Your task to perform on an android device: Clear the cart on newegg. Add alienware aurora to the cart on newegg, then select checkout. Image 0: 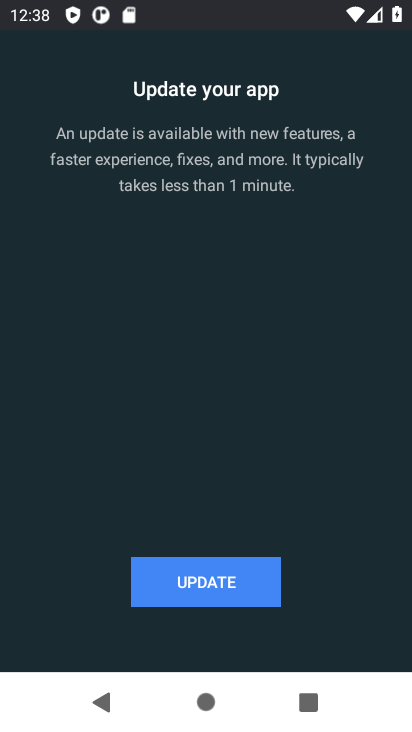
Step 0: press home button
Your task to perform on an android device: Clear the cart on newegg. Add alienware aurora to the cart on newegg, then select checkout. Image 1: 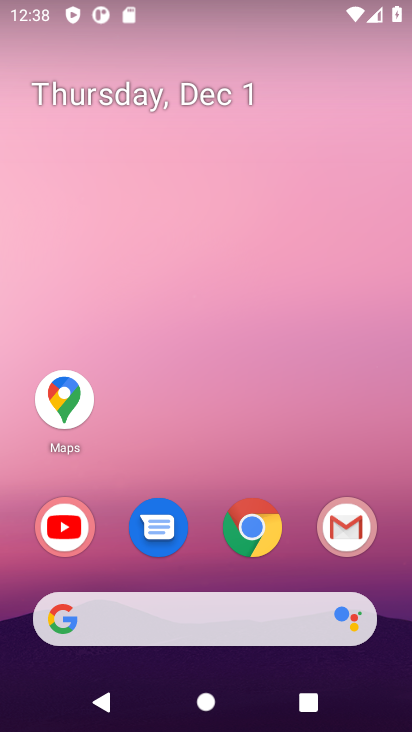
Step 1: click (261, 528)
Your task to perform on an android device: Clear the cart on newegg. Add alienware aurora to the cart on newegg, then select checkout. Image 2: 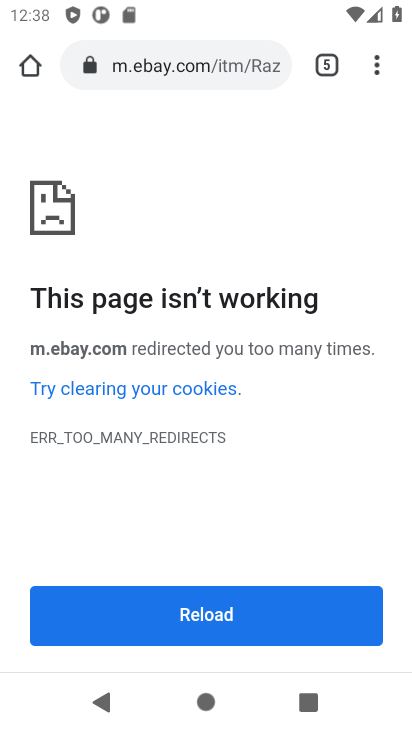
Step 2: click (169, 66)
Your task to perform on an android device: Clear the cart on newegg. Add alienware aurora to the cart on newegg, then select checkout. Image 3: 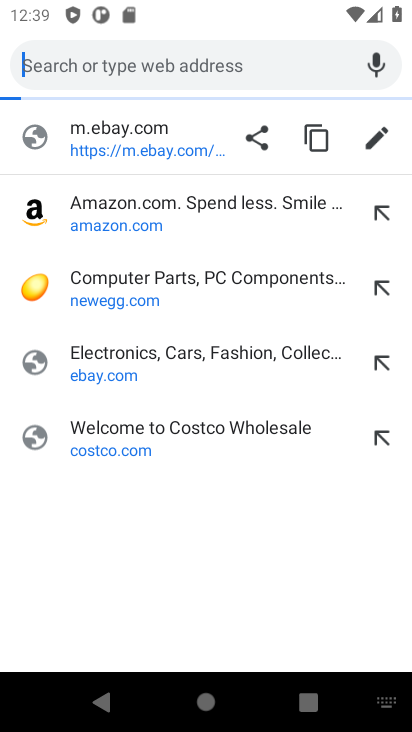
Step 3: click (99, 291)
Your task to perform on an android device: Clear the cart on newegg. Add alienware aurora to the cart on newegg, then select checkout. Image 4: 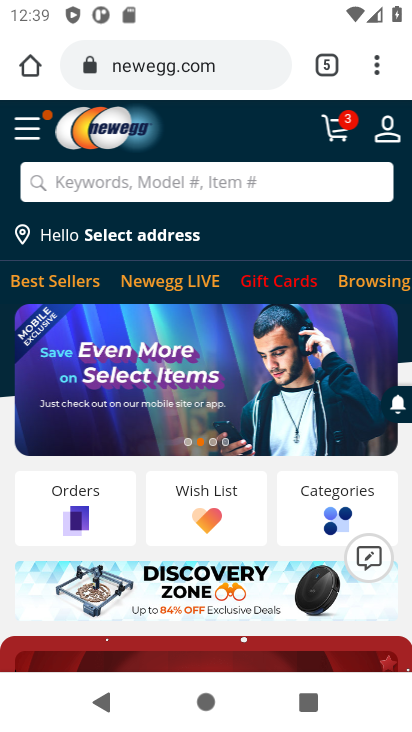
Step 4: click (332, 134)
Your task to perform on an android device: Clear the cart on newegg. Add alienware aurora to the cart on newegg, then select checkout. Image 5: 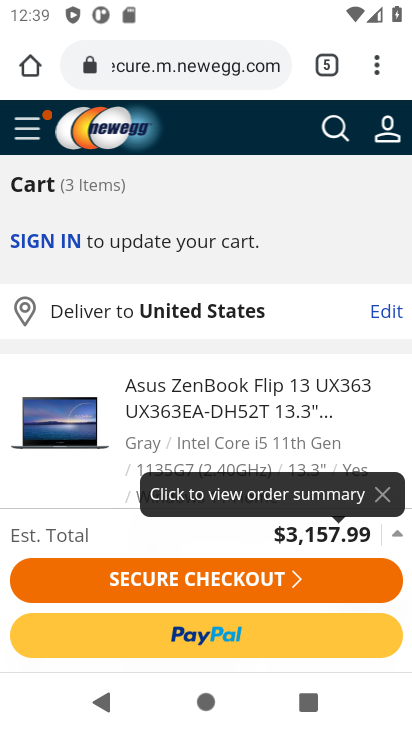
Step 5: drag from (140, 420) to (150, 209)
Your task to perform on an android device: Clear the cart on newegg. Add alienware aurora to the cart on newegg, then select checkout. Image 6: 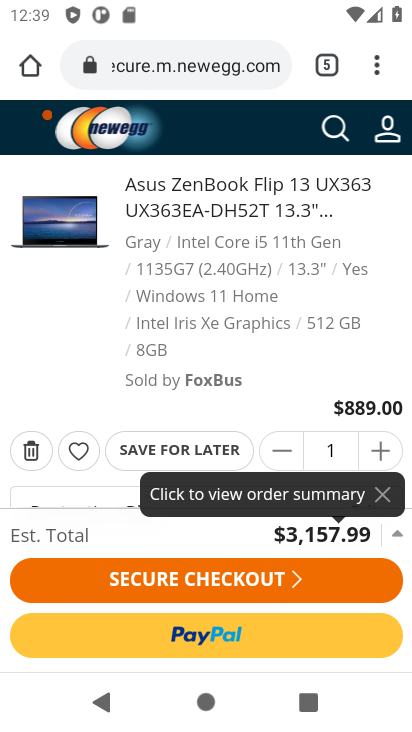
Step 6: click (24, 450)
Your task to perform on an android device: Clear the cart on newegg. Add alienware aurora to the cart on newegg, then select checkout. Image 7: 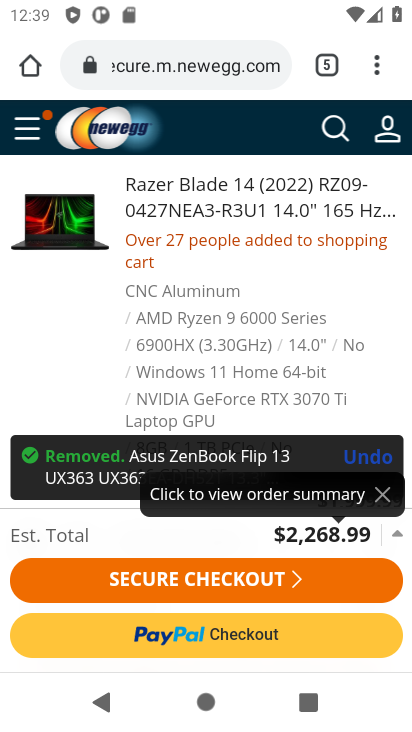
Step 7: drag from (170, 366) to (170, 264)
Your task to perform on an android device: Clear the cart on newegg. Add alienware aurora to the cart on newegg, then select checkout. Image 8: 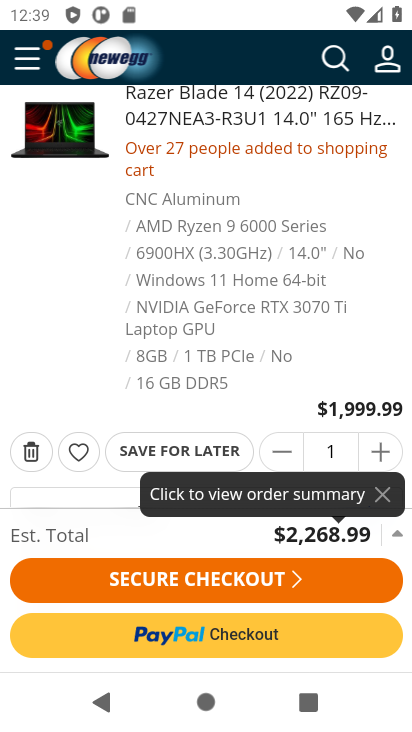
Step 8: click (30, 455)
Your task to perform on an android device: Clear the cart on newegg. Add alienware aurora to the cart on newegg, then select checkout. Image 9: 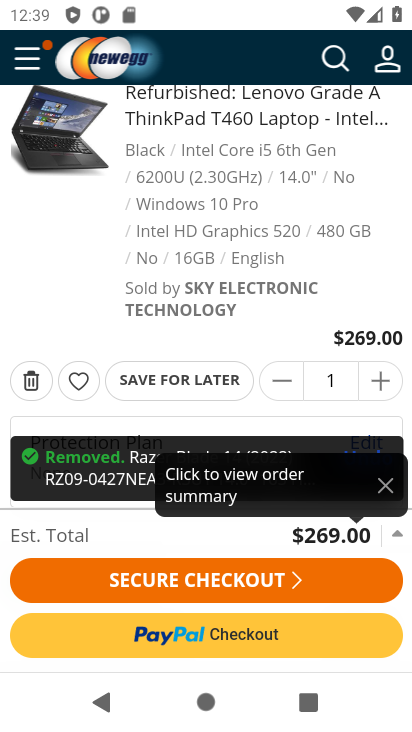
Step 9: click (30, 385)
Your task to perform on an android device: Clear the cart on newegg. Add alienware aurora to the cart on newegg, then select checkout. Image 10: 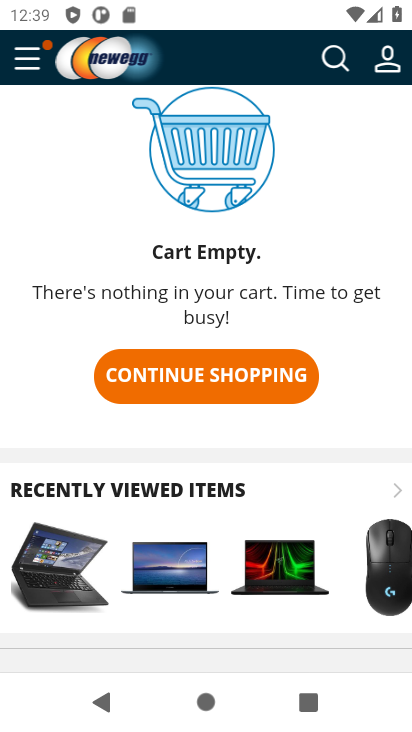
Step 10: click (332, 63)
Your task to perform on an android device: Clear the cart on newegg. Add alienware aurora to the cart on newegg, then select checkout. Image 11: 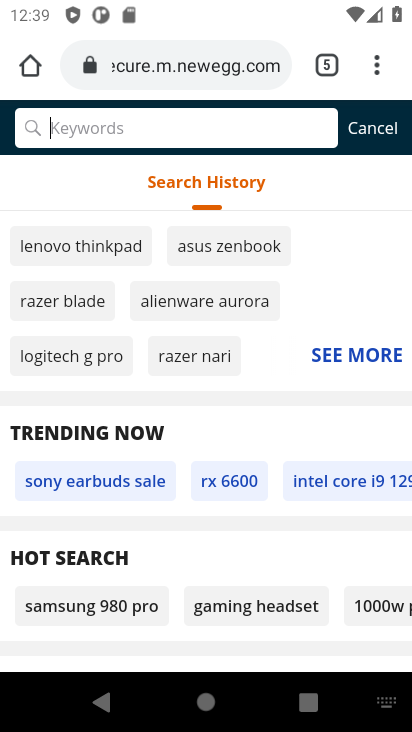
Step 11: type " alienware aurora"
Your task to perform on an android device: Clear the cart on newegg. Add alienware aurora to the cart on newegg, then select checkout. Image 12: 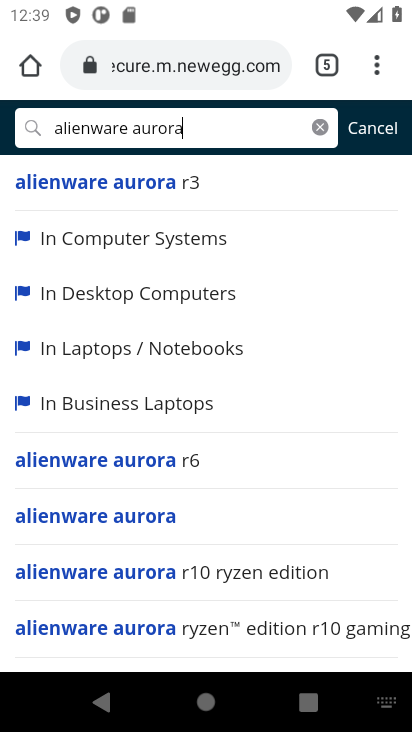
Step 12: click (88, 519)
Your task to perform on an android device: Clear the cart on newegg. Add alienware aurora to the cart on newegg, then select checkout. Image 13: 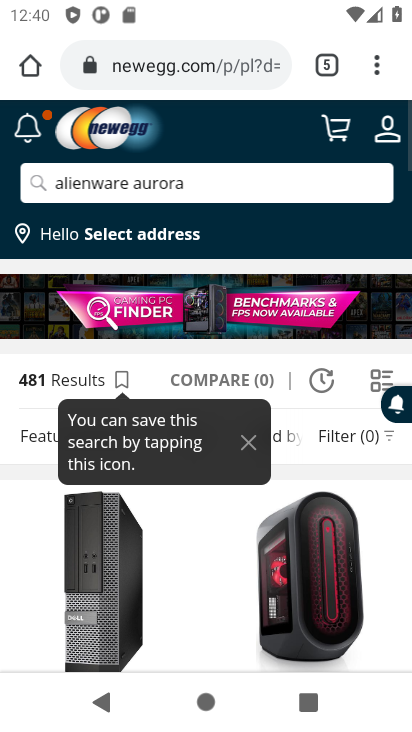
Step 13: drag from (152, 491) to (159, 206)
Your task to perform on an android device: Clear the cart on newegg. Add alienware aurora to the cart on newegg, then select checkout. Image 14: 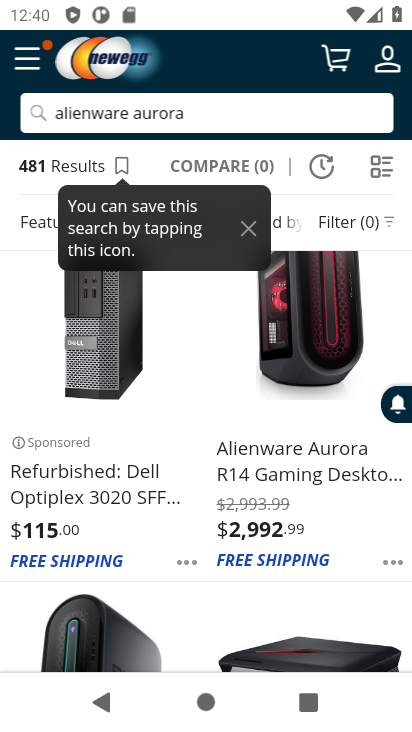
Step 14: click (302, 364)
Your task to perform on an android device: Clear the cart on newegg. Add alienware aurora to the cart on newegg, then select checkout. Image 15: 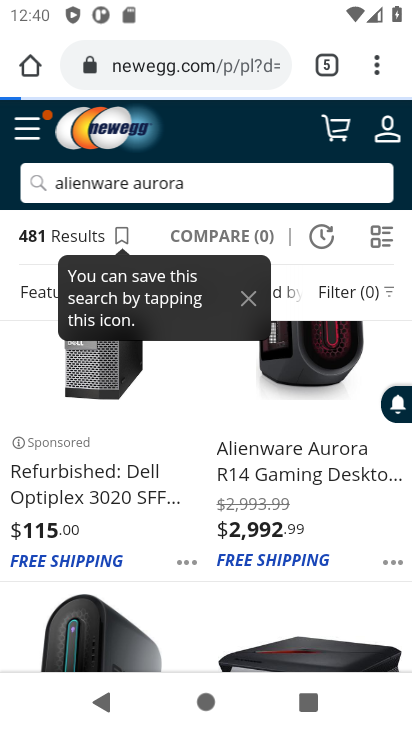
Step 15: click (299, 456)
Your task to perform on an android device: Clear the cart on newegg. Add alienware aurora to the cart on newegg, then select checkout. Image 16: 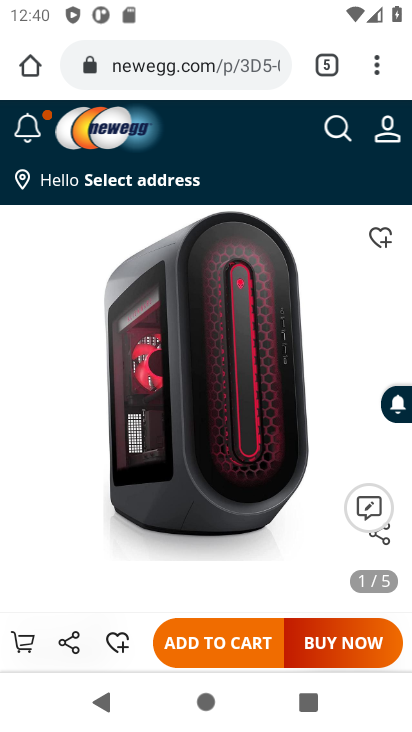
Step 16: click (234, 642)
Your task to perform on an android device: Clear the cart on newegg. Add alienware aurora to the cart on newegg, then select checkout. Image 17: 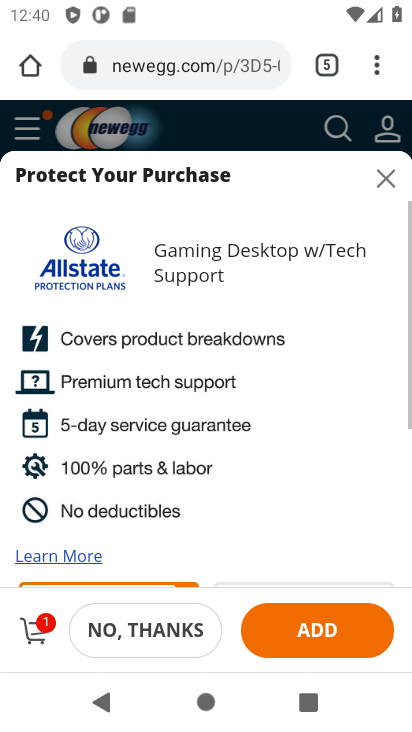
Step 17: click (36, 625)
Your task to perform on an android device: Clear the cart on newegg. Add alienware aurora to the cart on newegg, then select checkout. Image 18: 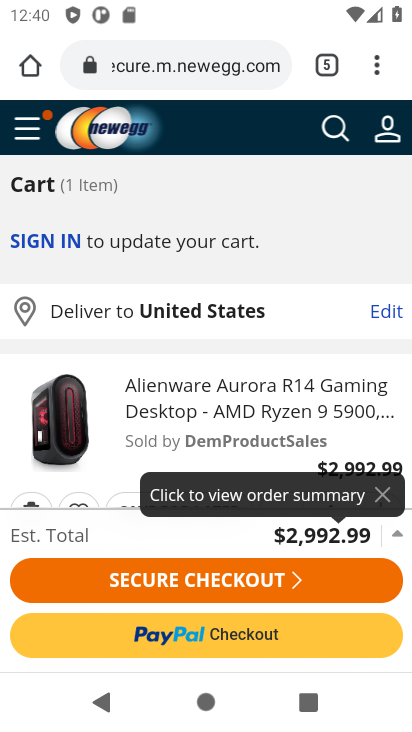
Step 18: click (201, 580)
Your task to perform on an android device: Clear the cart on newegg. Add alienware aurora to the cart on newegg, then select checkout. Image 19: 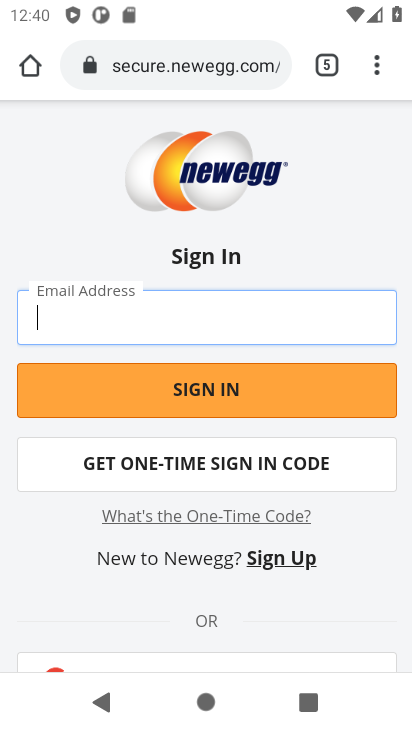
Step 19: task complete